Your task to perform on an android device: make emails show in primary in the gmail app Image 0: 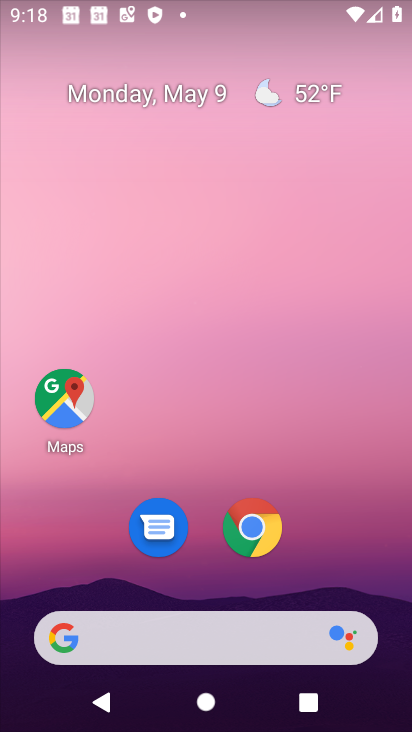
Step 0: drag from (222, 561) to (197, 31)
Your task to perform on an android device: make emails show in primary in the gmail app Image 1: 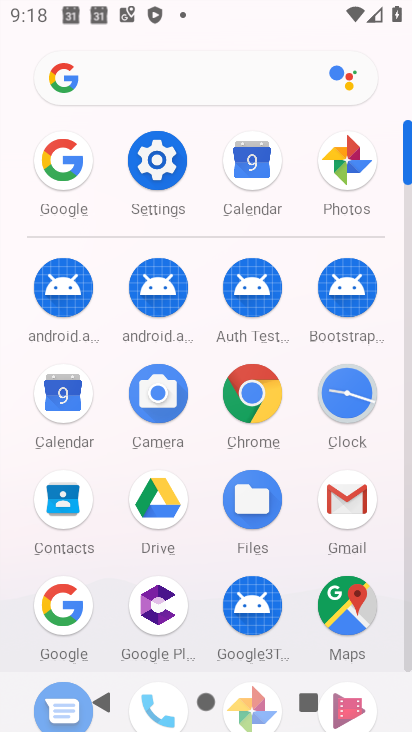
Step 1: click (348, 499)
Your task to perform on an android device: make emails show in primary in the gmail app Image 2: 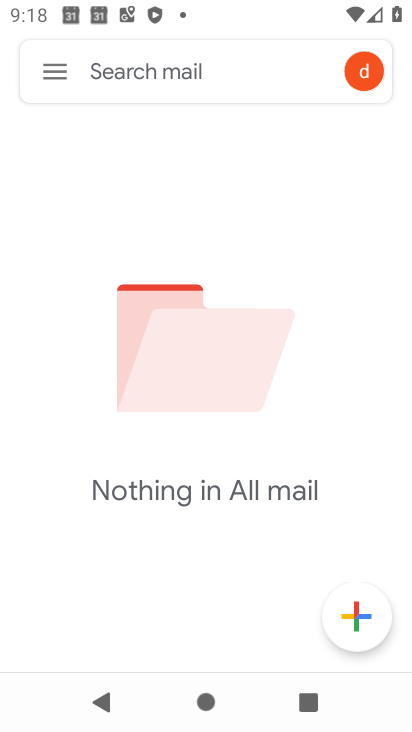
Step 2: click (58, 79)
Your task to perform on an android device: make emails show in primary in the gmail app Image 3: 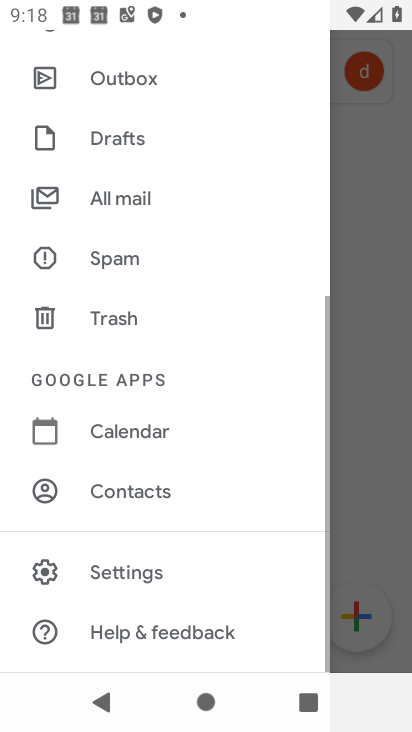
Step 3: click (142, 560)
Your task to perform on an android device: make emails show in primary in the gmail app Image 4: 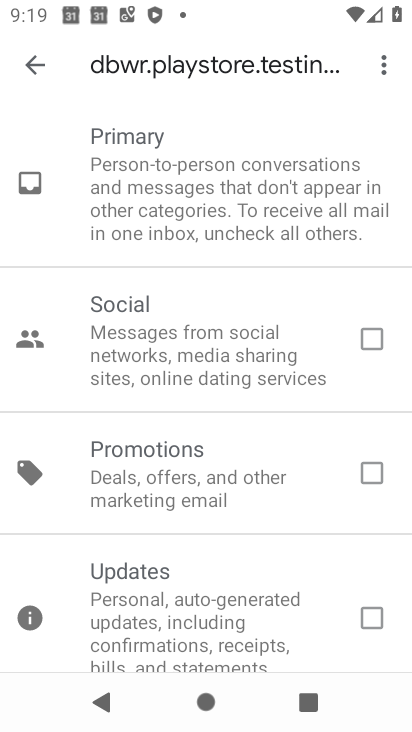
Step 4: task complete